Your task to perform on an android device: Search for vegetarian restaurants on Maps Image 0: 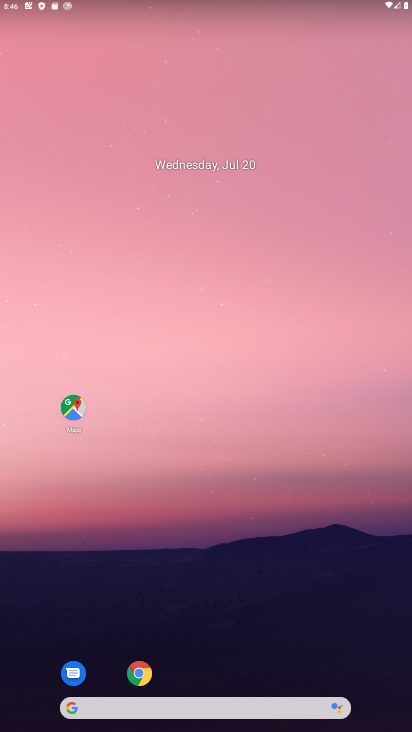
Step 0: drag from (178, 583) to (255, 10)
Your task to perform on an android device: Search for vegetarian restaurants on Maps Image 1: 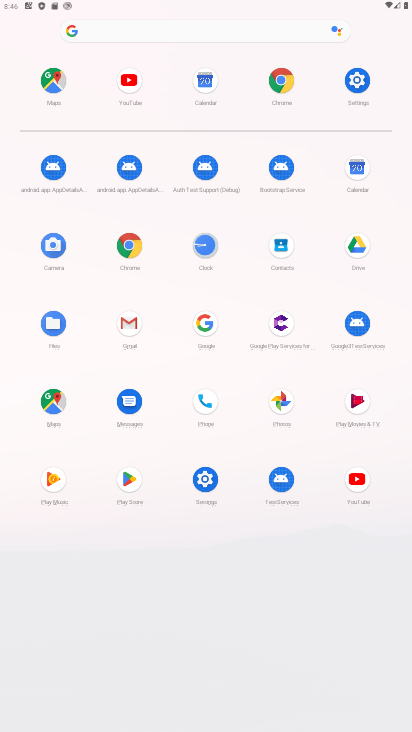
Step 1: drag from (197, 566) to (201, 343)
Your task to perform on an android device: Search for vegetarian restaurants on Maps Image 2: 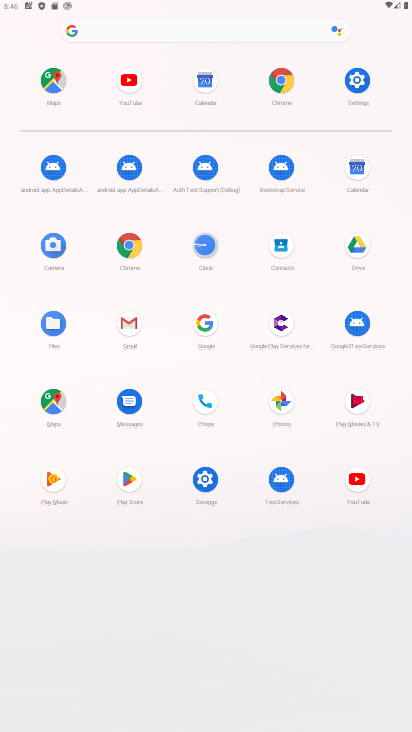
Step 2: click (50, 399)
Your task to perform on an android device: Search for vegetarian restaurants on Maps Image 3: 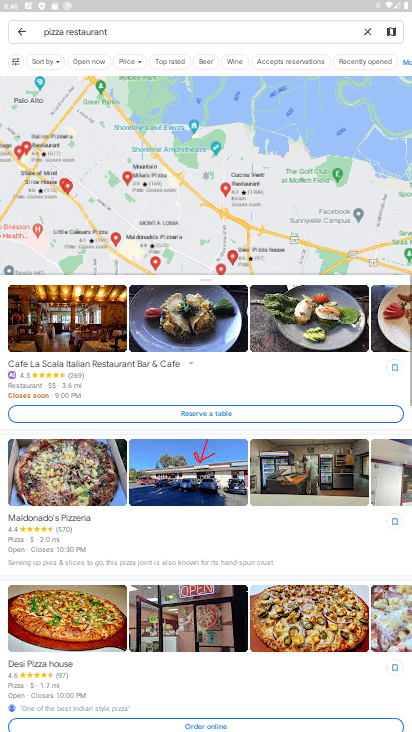
Step 3: drag from (207, 546) to (245, 263)
Your task to perform on an android device: Search for vegetarian restaurants on Maps Image 4: 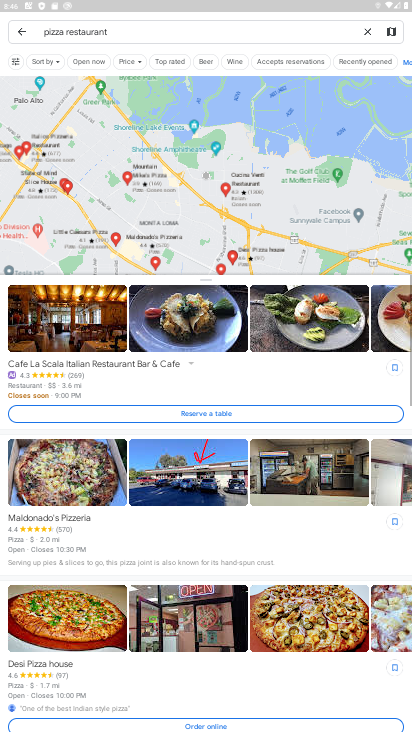
Step 4: drag from (250, 509) to (240, 189)
Your task to perform on an android device: Search for vegetarian restaurants on Maps Image 5: 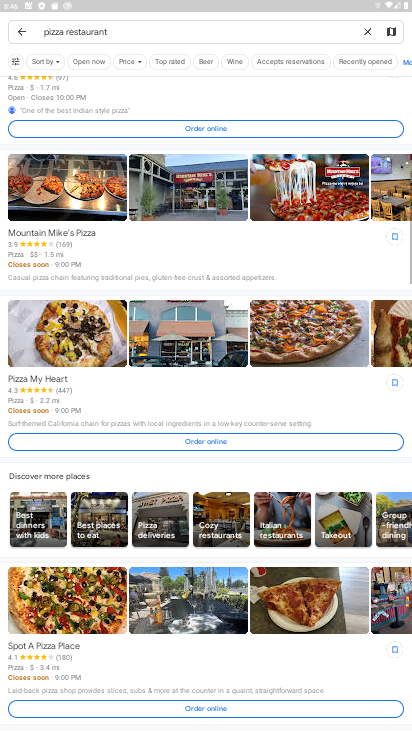
Step 5: drag from (188, 580) to (191, 377)
Your task to perform on an android device: Search for vegetarian restaurants on Maps Image 6: 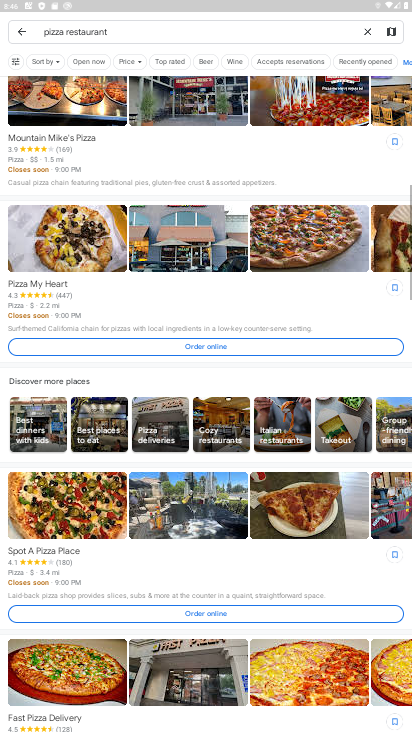
Step 6: click (23, 32)
Your task to perform on an android device: Search for vegetarian restaurants on Maps Image 7: 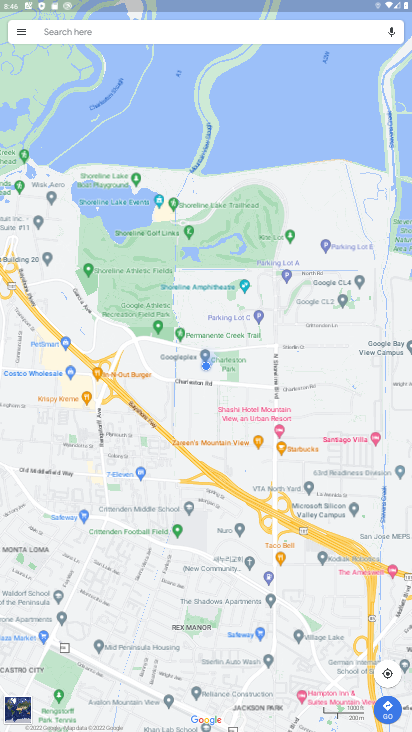
Step 7: click (17, 27)
Your task to perform on an android device: Search for vegetarian restaurants on Maps Image 8: 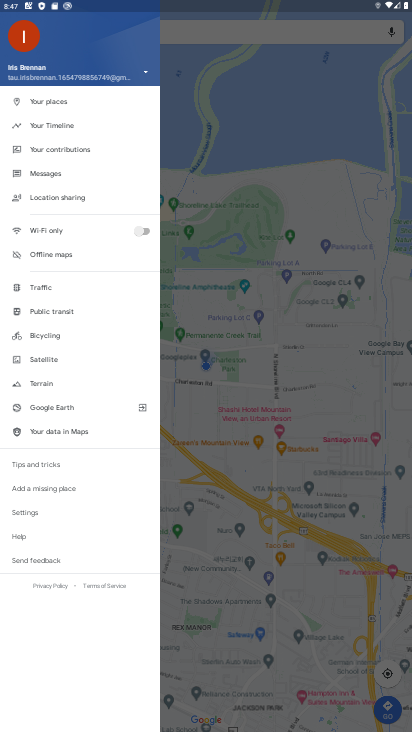
Step 8: drag from (83, 510) to (103, 325)
Your task to perform on an android device: Search for vegetarian restaurants on Maps Image 9: 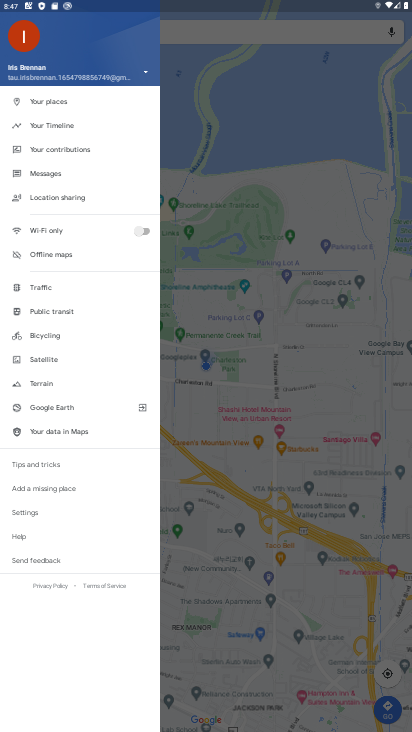
Step 9: click (215, 32)
Your task to perform on an android device: Search for vegetarian restaurants on Maps Image 10: 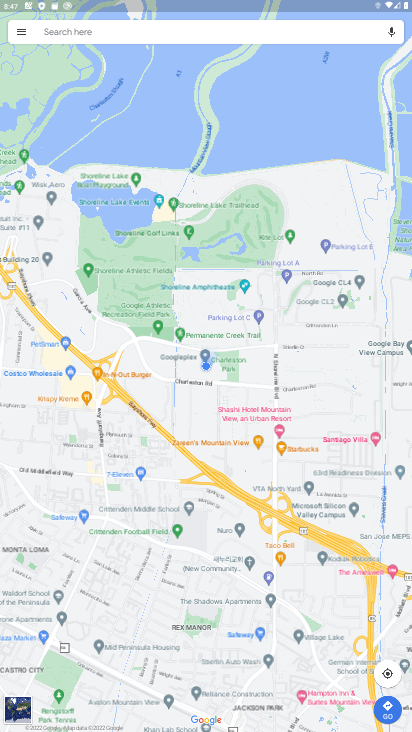
Step 10: click (191, 33)
Your task to perform on an android device: Search for vegetarian restaurants on Maps Image 11: 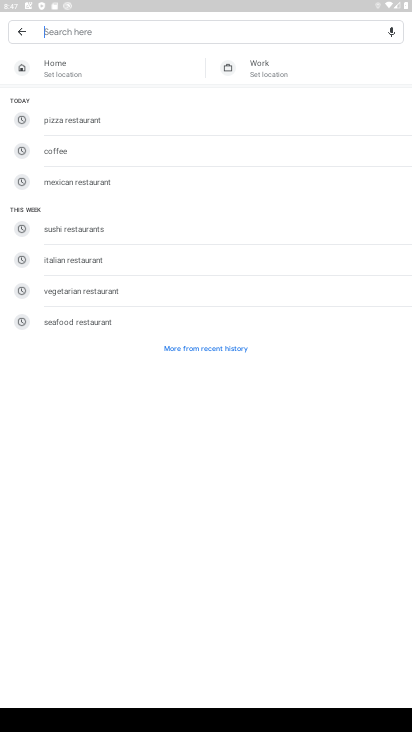
Step 11: click (81, 289)
Your task to perform on an android device: Search for vegetarian restaurants on Maps Image 12: 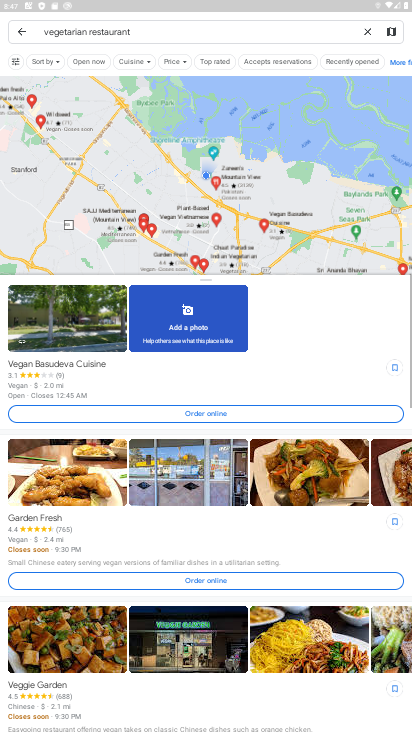
Step 12: task complete